Your task to perform on an android device: turn off notifications settings in the gmail app Image 0: 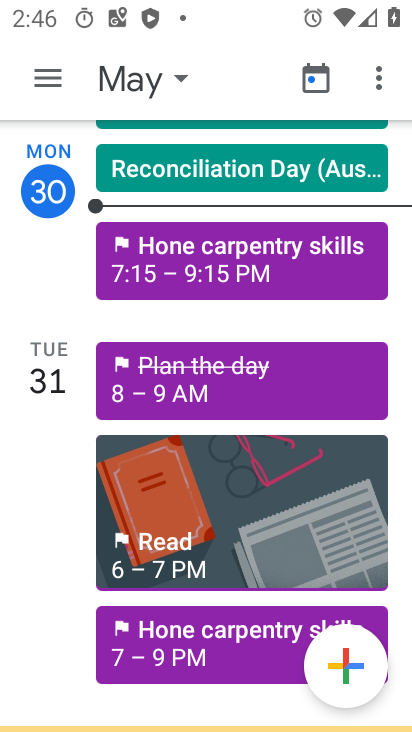
Step 0: press back button
Your task to perform on an android device: turn off notifications settings in the gmail app Image 1: 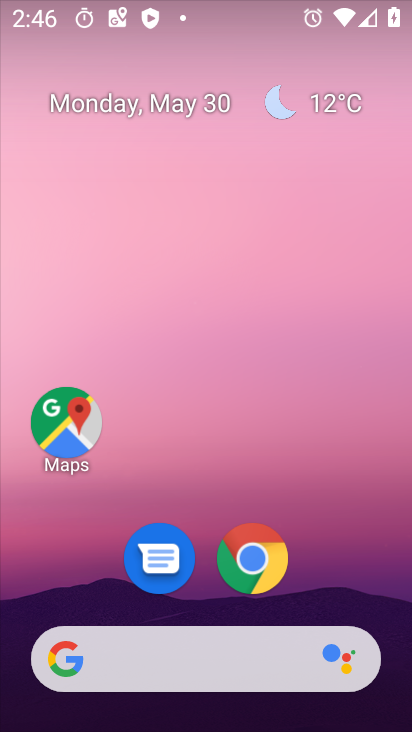
Step 1: drag from (189, 453) to (293, 14)
Your task to perform on an android device: turn off notifications settings in the gmail app Image 2: 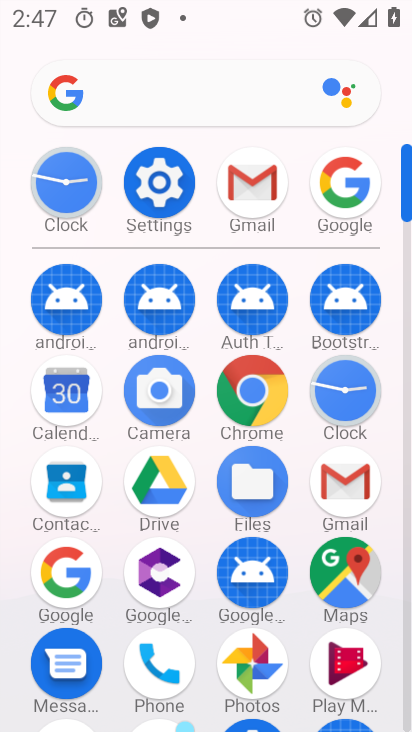
Step 2: click (252, 163)
Your task to perform on an android device: turn off notifications settings in the gmail app Image 3: 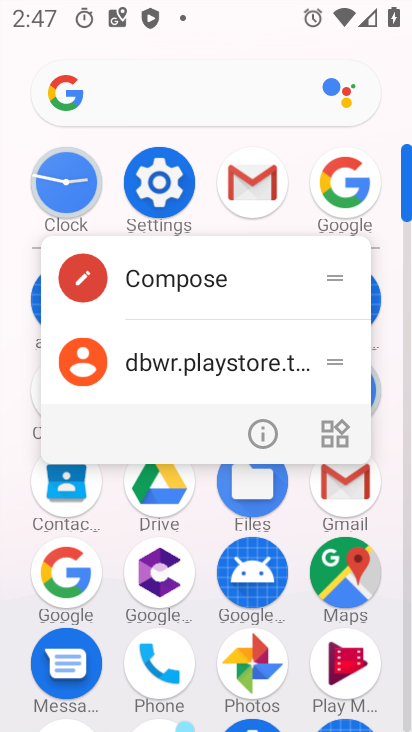
Step 3: click (264, 443)
Your task to perform on an android device: turn off notifications settings in the gmail app Image 4: 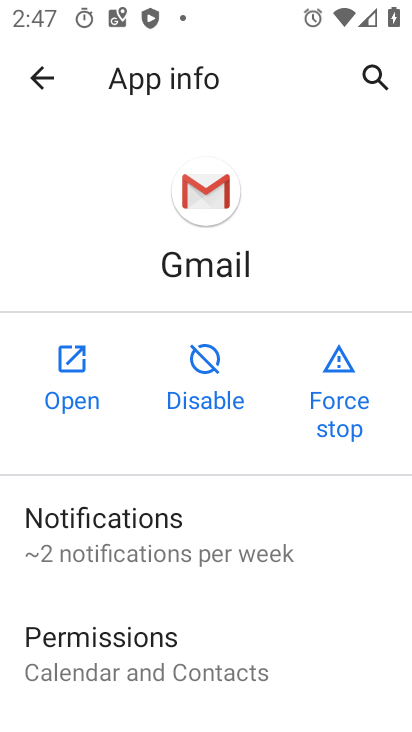
Step 4: click (122, 522)
Your task to perform on an android device: turn off notifications settings in the gmail app Image 5: 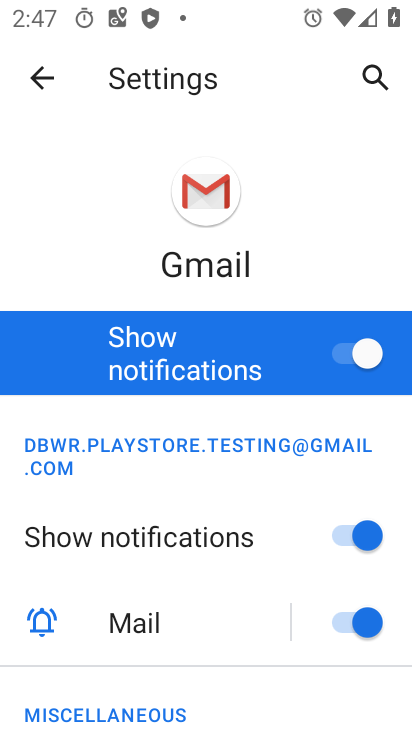
Step 5: click (358, 350)
Your task to perform on an android device: turn off notifications settings in the gmail app Image 6: 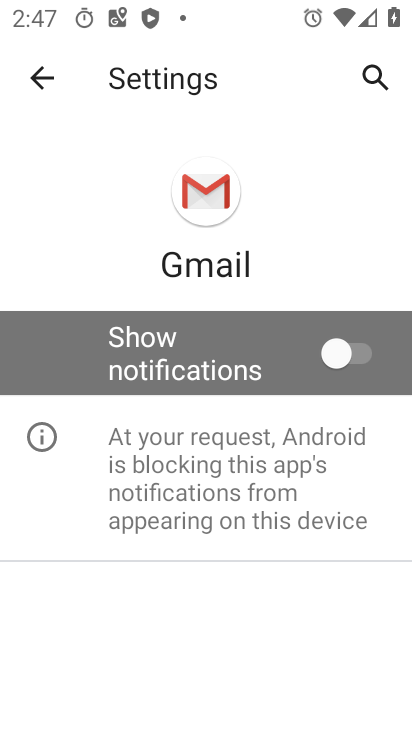
Step 6: task complete